Your task to perform on an android device: What is the news today? Image 0: 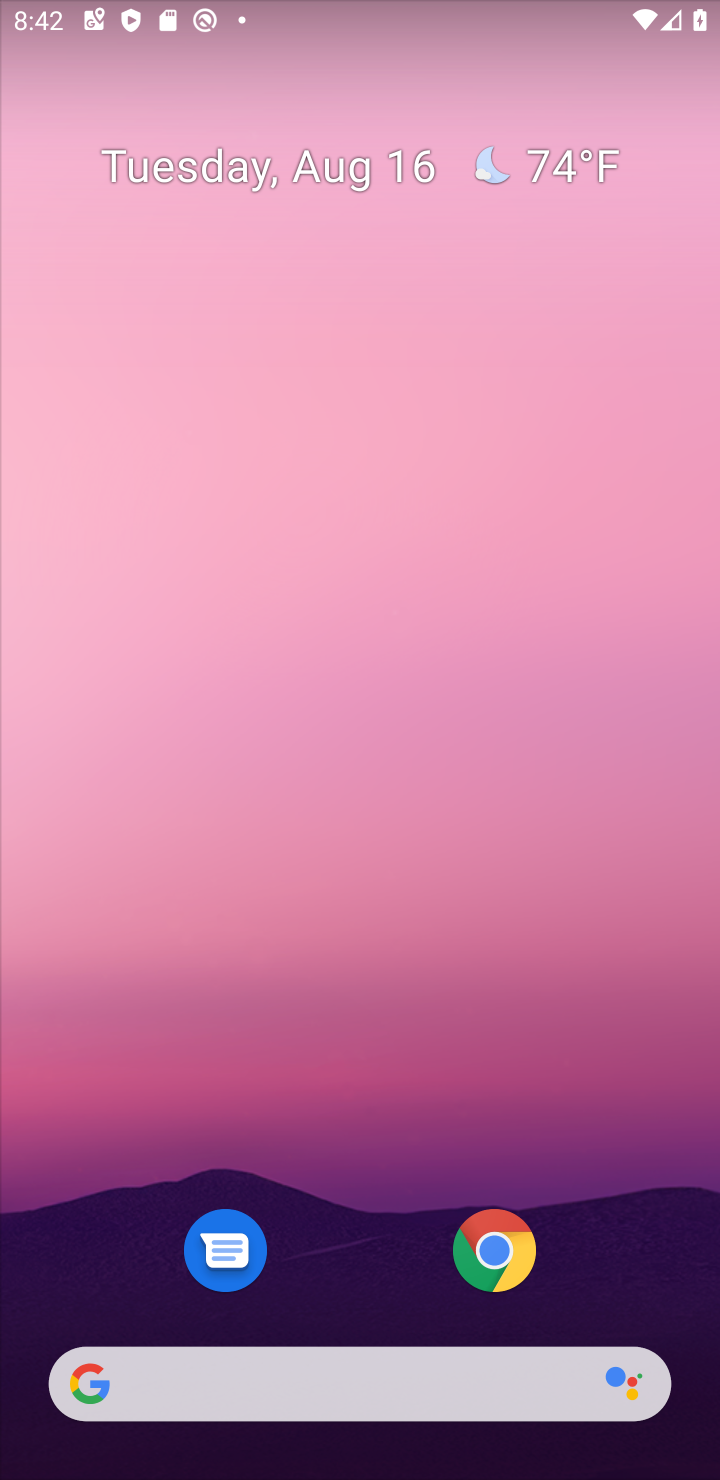
Step 0: click (137, 1378)
Your task to perform on an android device: What is the news today? Image 1: 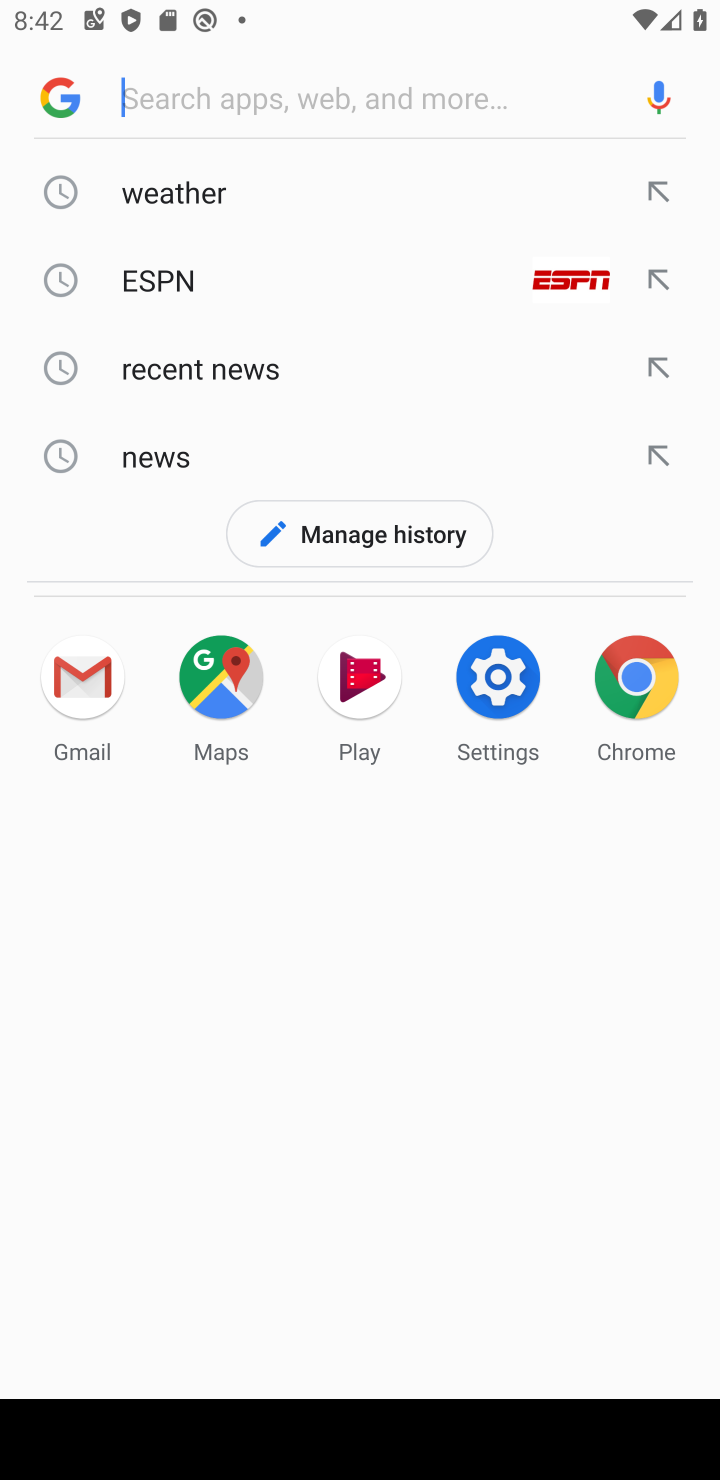
Step 1: click (161, 479)
Your task to perform on an android device: What is the news today? Image 2: 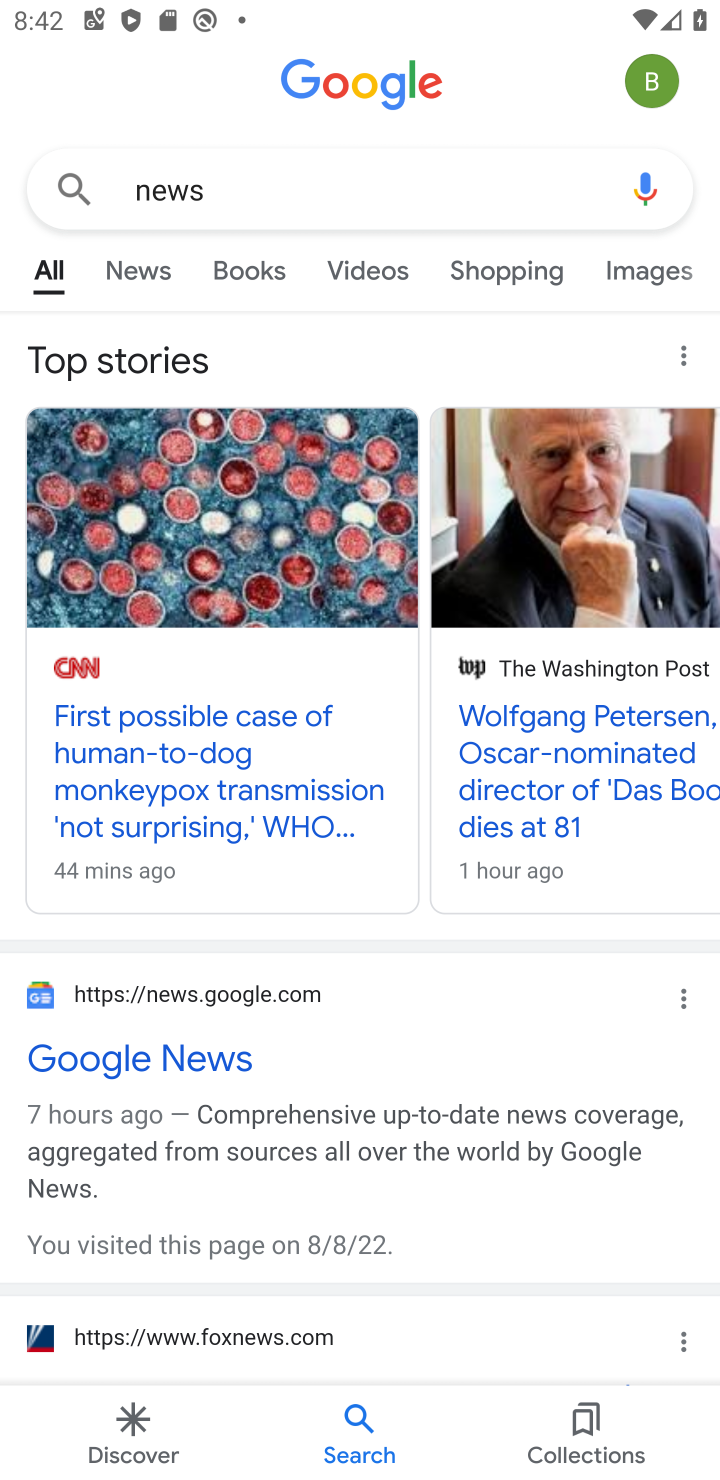
Step 2: task complete